Your task to perform on an android device: Open Google Maps and go to "Timeline" Image 0: 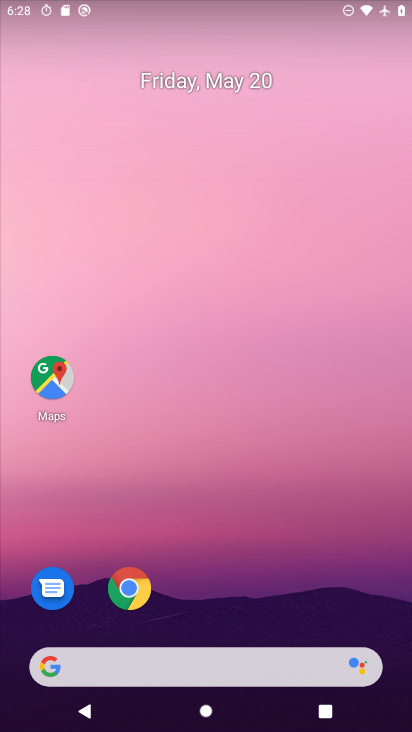
Step 0: click (139, 590)
Your task to perform on an android device: Open Google Maps and go to "Timeline" Image 1: 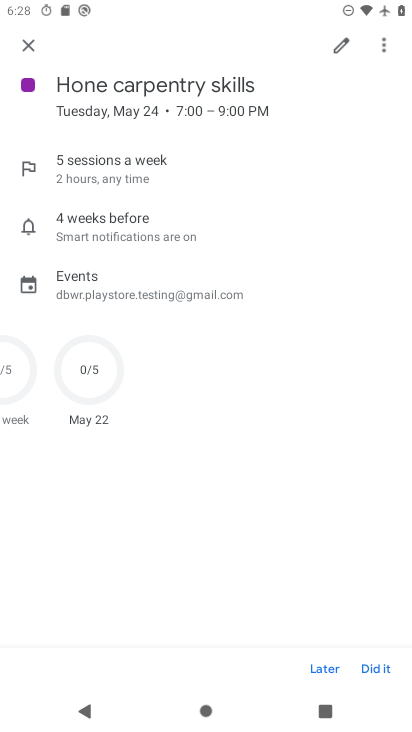
Step 1: press home button
Your task to perform on an android device: Open Google Maps and go to "Timeline" Image 2: 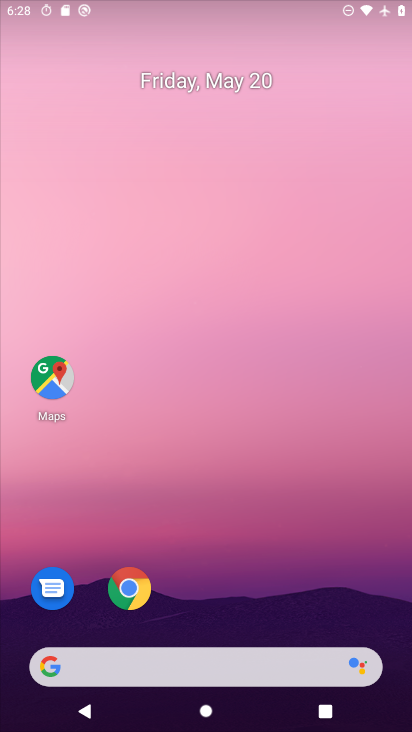
Step 2: drag from (235, 595) to (168, 198)
Your task to perform on an android device: Open Google Maps and go to "Timeline" Image 3: 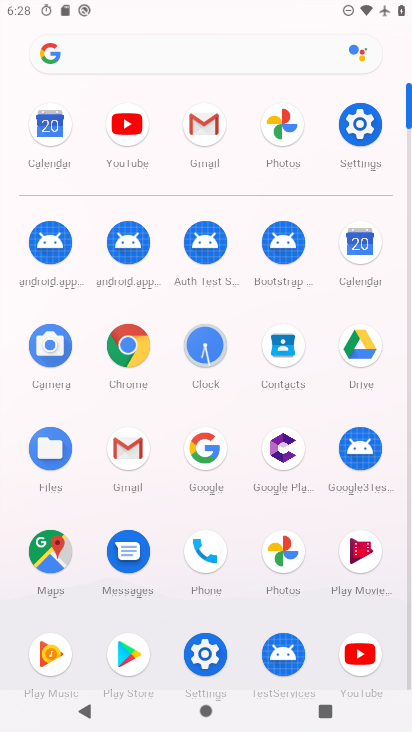
Step 3: click (53, 557)
Your task to perform on an android device: Open Google Maps and go to "Timeline" Image 4: 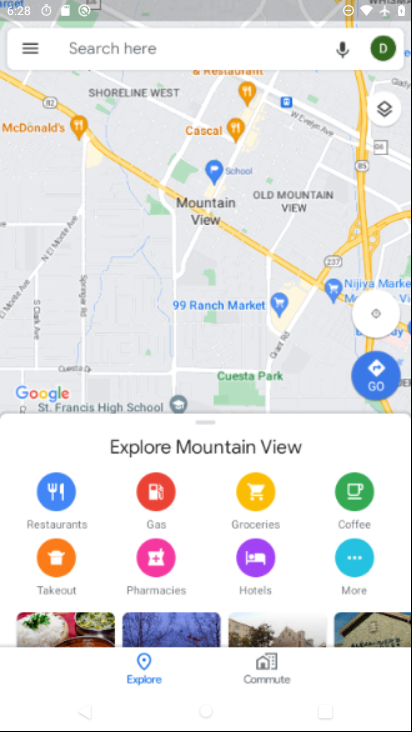
Step 4: click (30, 49)
Your task to perform on an android device: Open Google Maps and go to "Timeline" Image 5: 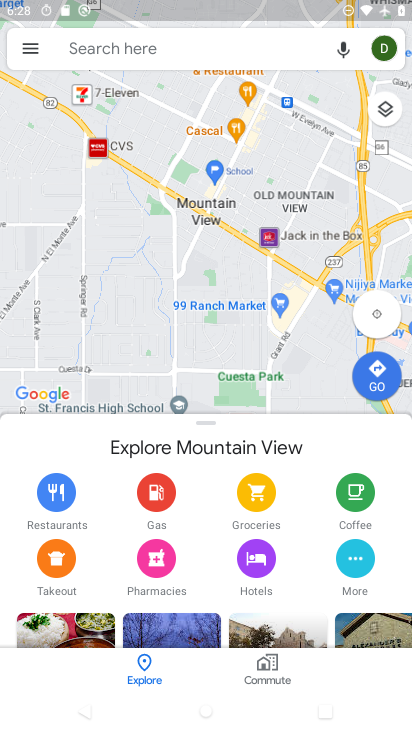
Step 5: click (37, 52)
Your task to perform on an android device: Open Google Maps and go to "Timeline" Image 6: 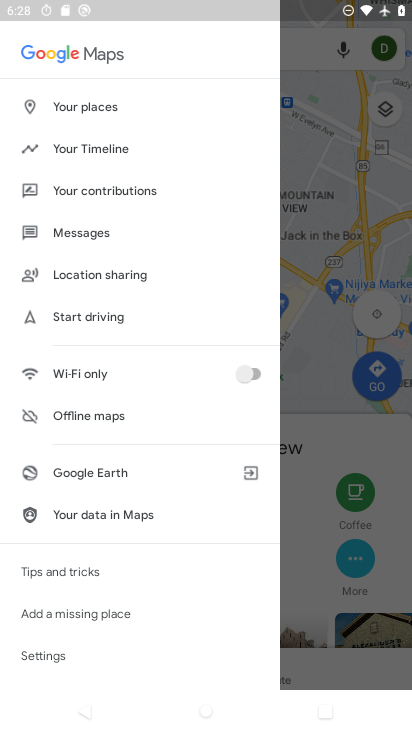
Step 6: click (115, 153)
Your task to perform on an android device: Open Google Maps and go to "Timeline" Image 7: 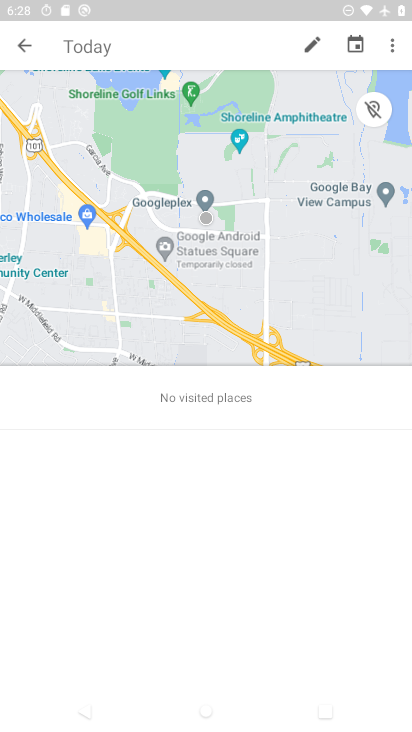
Step 7: task complete